Your task to perform on an android device: turn off airplane mode Image 0: 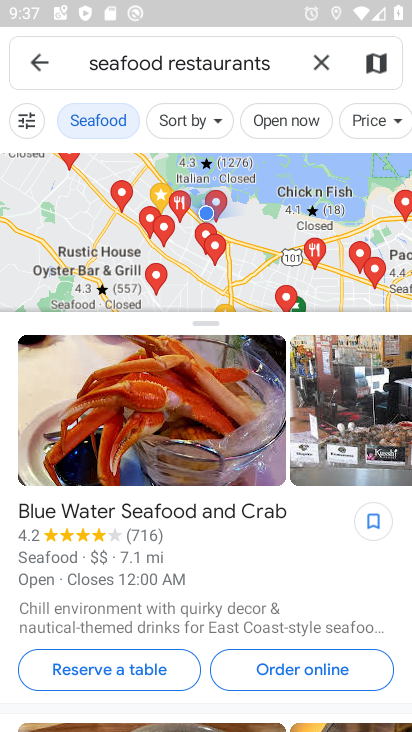
Step 0: press home button
Your task to perform on an android device: turn off airplane mode Image 1: 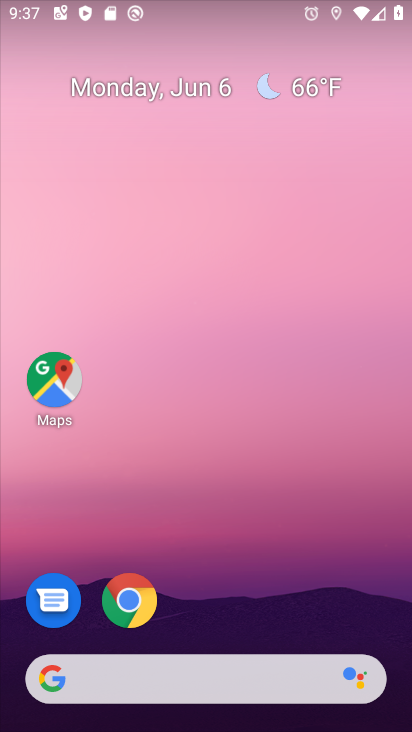
Step 1: task complete